Your task to perform on an android device: delete browsing data in the chrome app Image 0: 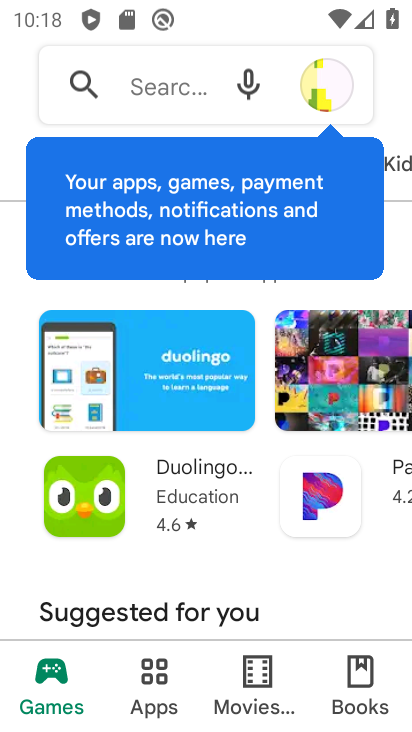
Step 0: press back button
Your task to perform on an android device: delete browsing data in the chrome app Image 1: 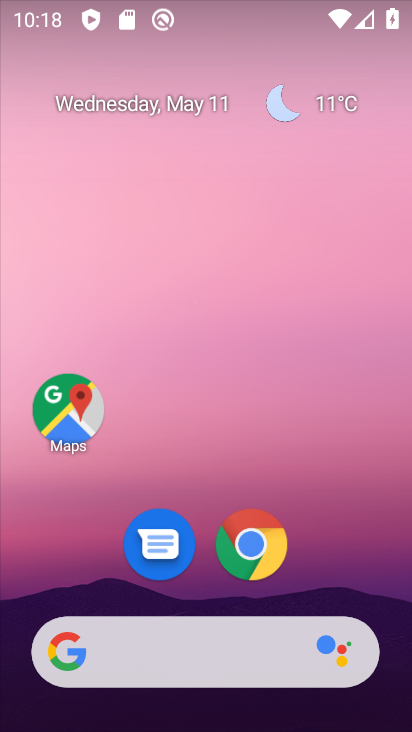
Step 1: click (253, 544)
Your task to perform on an android device: delete browsing data in the chrome app Image 2: 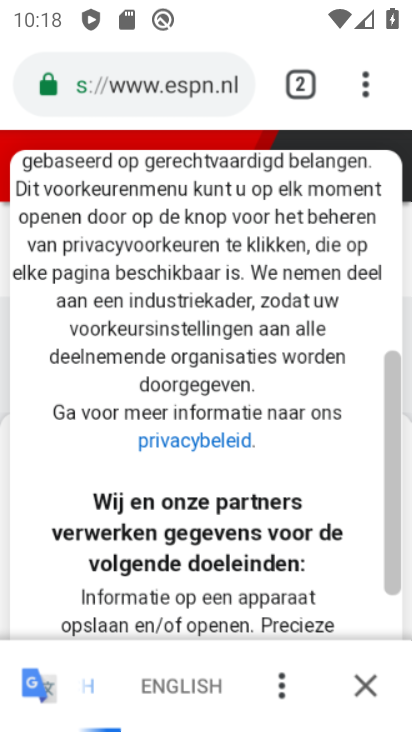
Step 2: drag from (376, 86) to (97, 484)
Your task to perform on an android device: delete browsing data in the chrome app Image 3: 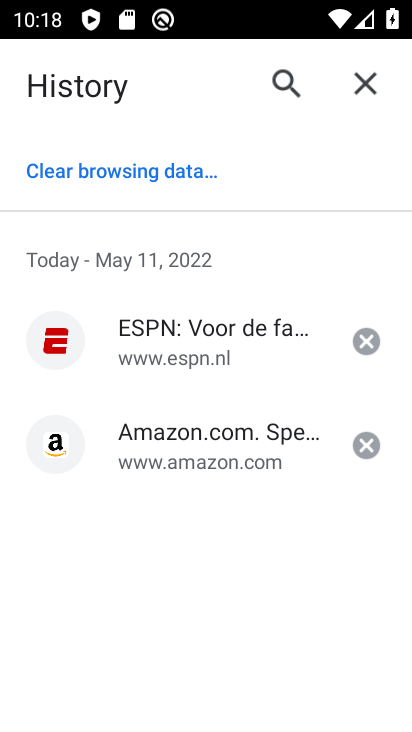
Step 3: click (141, 167)
Your task to perform on an android device: delete browsing data in the chrome app Image 4: 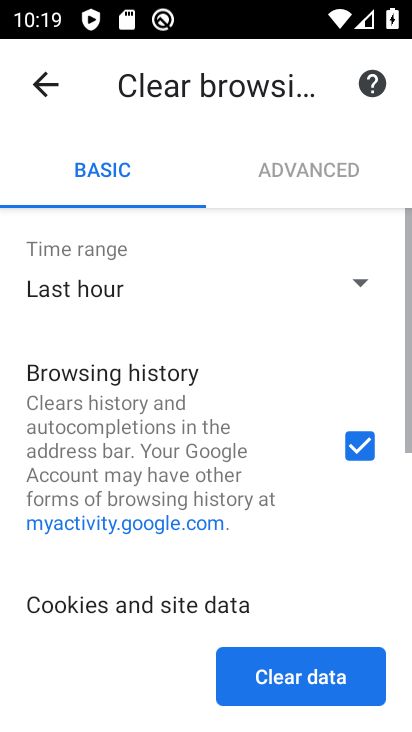
Step 4: click (283, 698)
Your task to perform on an android device: delete browsing data in the chrome app Image 5: 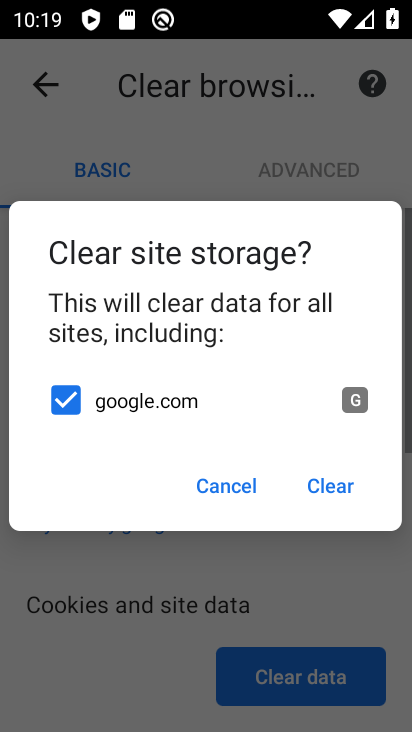
Step 5: task complete